Your task to perform on an android device: Show me the alarms in the clock app Image 0: 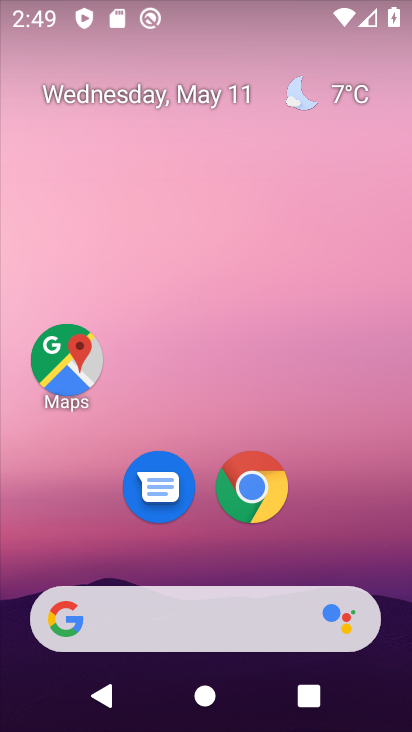
Step 0: drag from (218, 617) to (230, 1)
Your task to perform on an android device: Show me the alarms in the clock app Image 1: 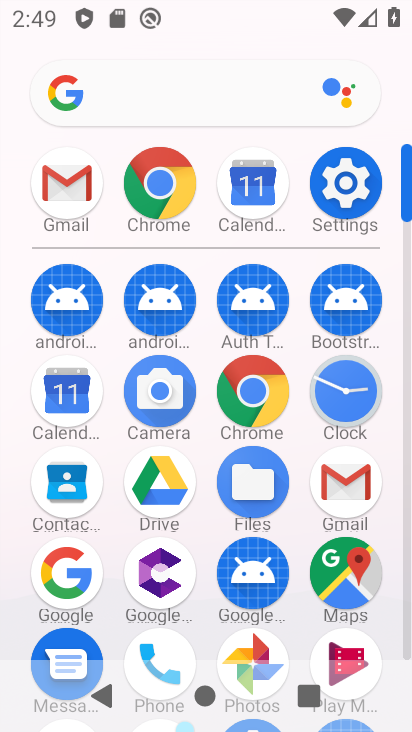
Step 1: click (344, 400)
Your task to perform on an android device: Show me the alarms in the clock app Image 2: 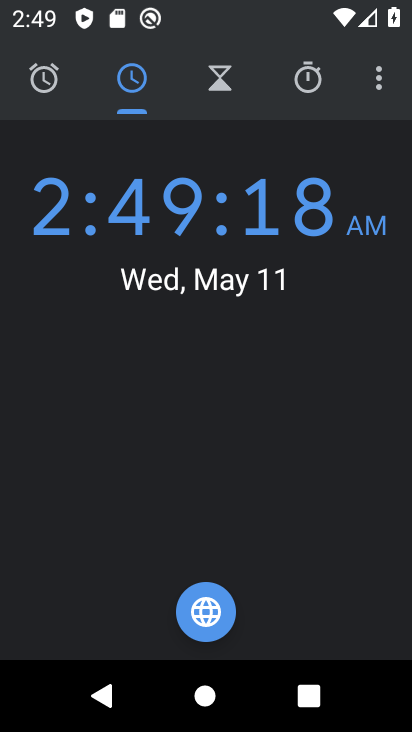
Step 2: click (58, 85)
Your task to perform on an android device: Show me the alarms in the clock app Image 3: 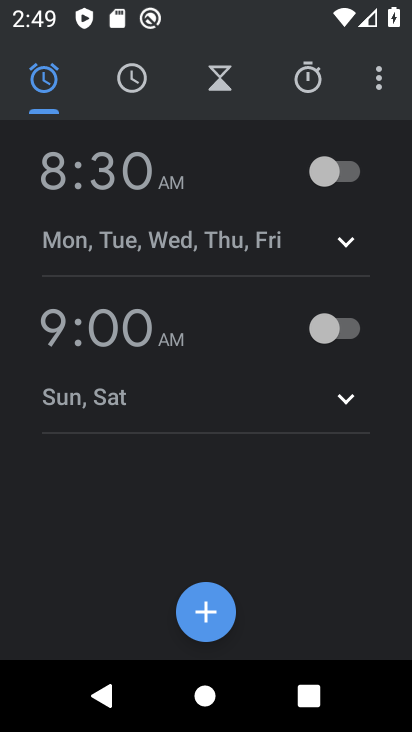
Step 3: task complete